Your task to perform on an android device: Open Google Chrome and open the bookmarks view Image 0: 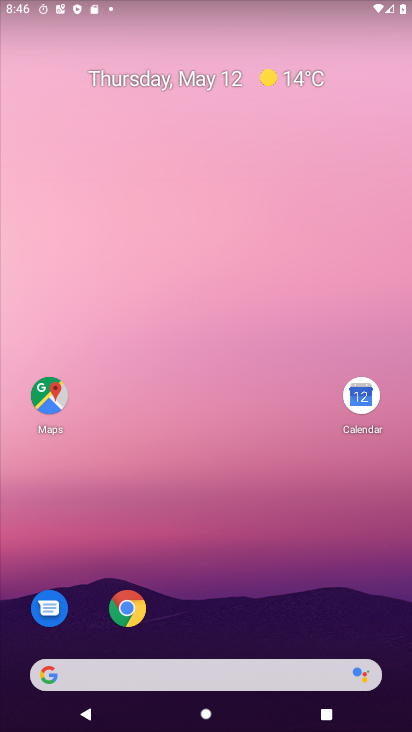
Step 0: click (137, 612)
Your task to perform on an android device: Open Google Chrome and open the bookmarks view Image 1: 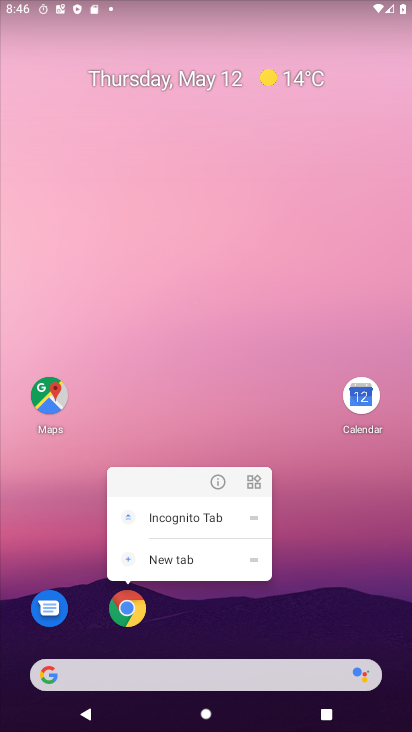
Step 1: click (145, 610)
Your task to perform on an android device: Open Google Chrome and open the bookmarks view Image 2: 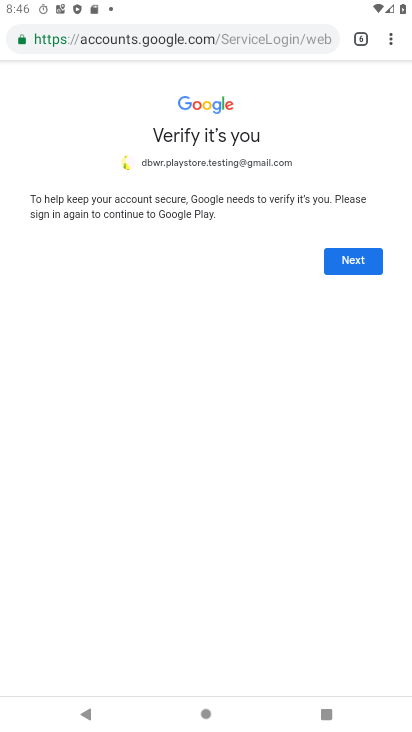
Step 2: click (389, 29)
Your task to perform on an android device: Open Google Chrome and open the bookmarks view Image 3: 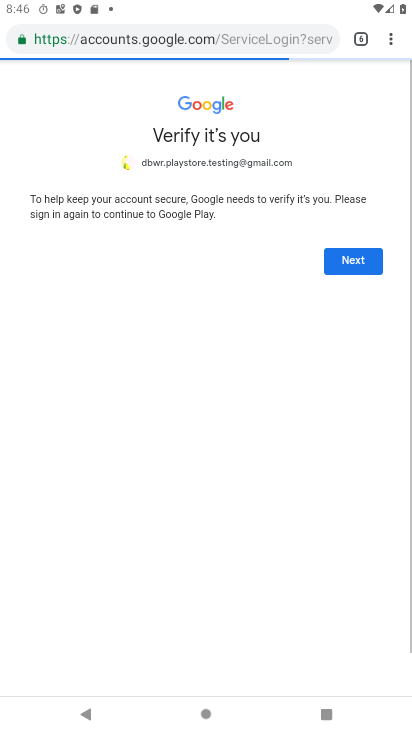
Step 3: click (377, 50)
Your task to perform on an android device: Open Google Chrome and open the bookmarks view Image 4: 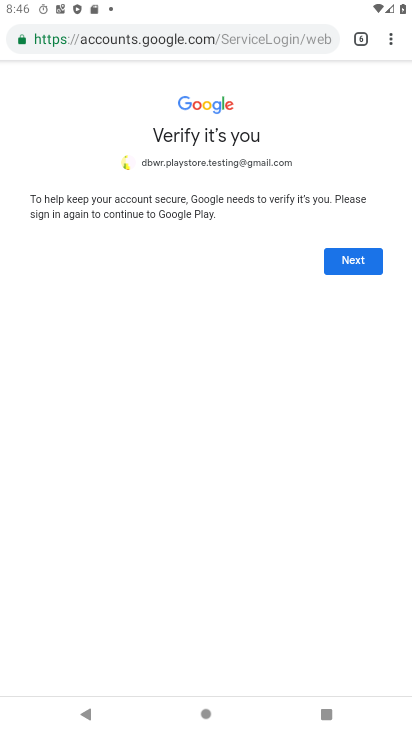
Step 4: click (395, 29)
Your task to perform on an android device: Open Google Chrome and open the bookmarks view Image 5: 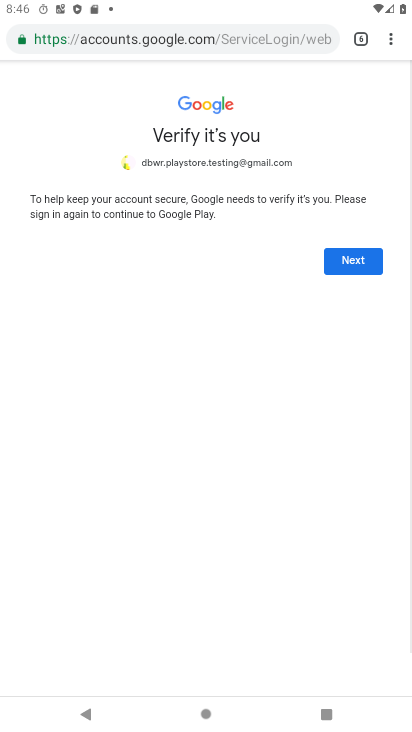
Step 5: click (387, 37)
Your task to perform on an android device: Open Google Chrome and open the bookmarks view Image 6: 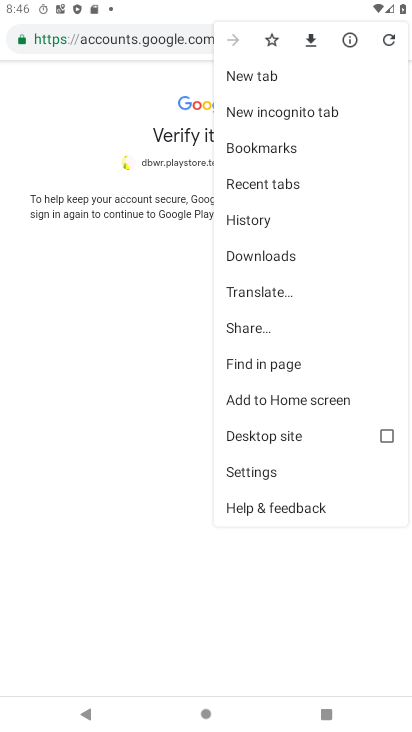
Step 6: click (287, 151)
Your task to perform on an android device: Open Google Chrome and open the bookmarks view Image 7: 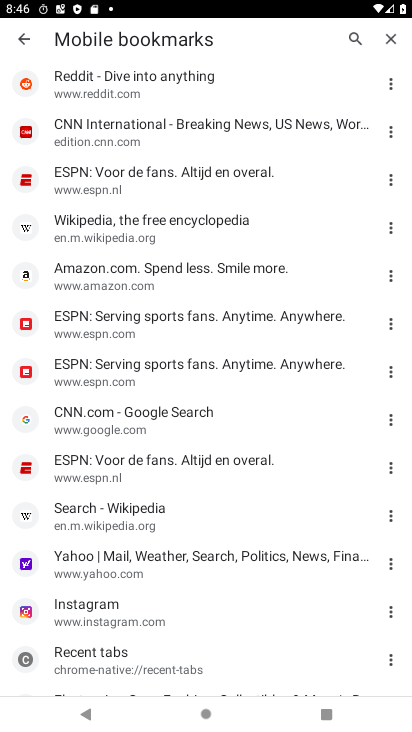
Step 7: task complete